Your task to perform on an android device: Check the weather Image 0: 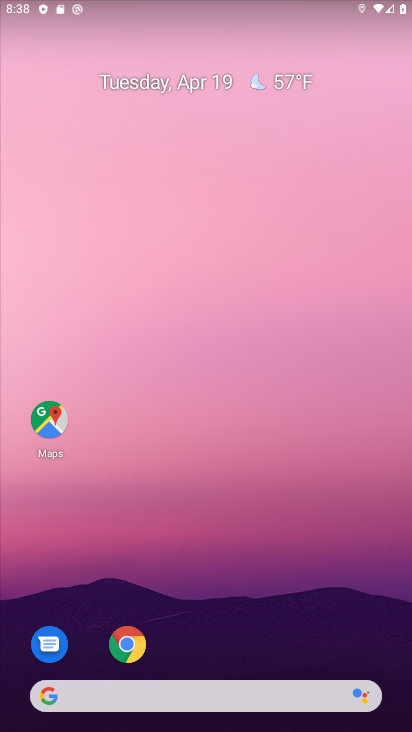
Step 0: click (266, 84)
Your task to perform on an android device: Check the weather Image 1: 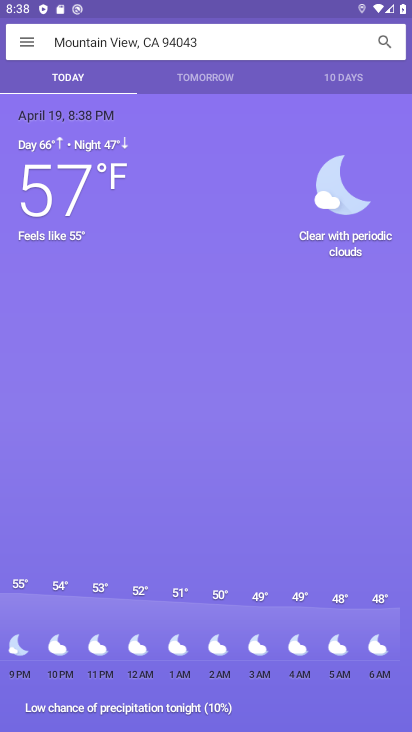
Step 1: task complete